Your task to perform on an android device: read, delete, or share a saved page in the chrome app Image 0: 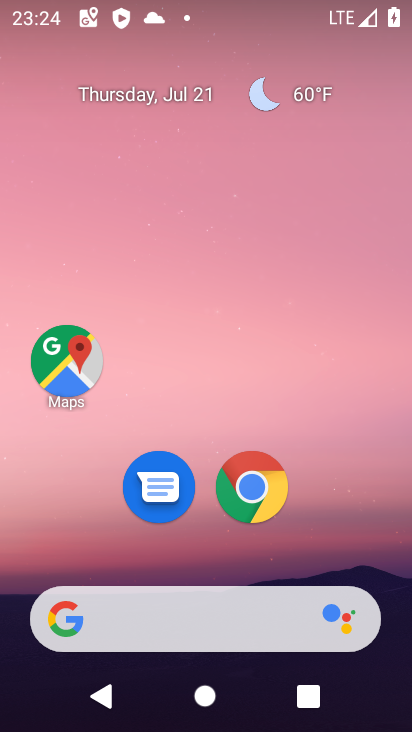
Step 0: click (236, 476)
Your task to perform on an android device: read, delete, or share a saved page in the chrome app Image 1: 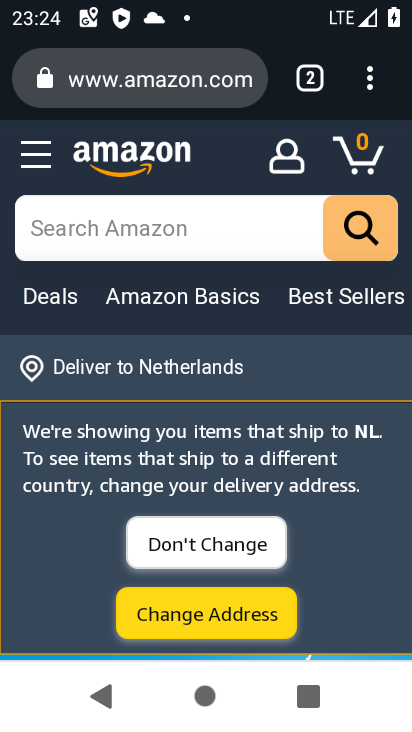
Step 1: drag from (371, 76) to (113, 500)
Your task to perform on an android device: read, delete, or share a saved page in the chrome app Image 2: 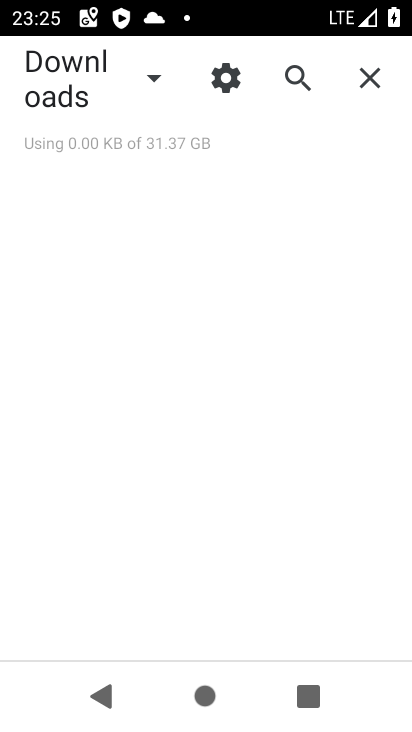
Step 2: click (142, 80)
Your task to perform on an android device: read, delete, or share a saved page in the chrome app Image 3: 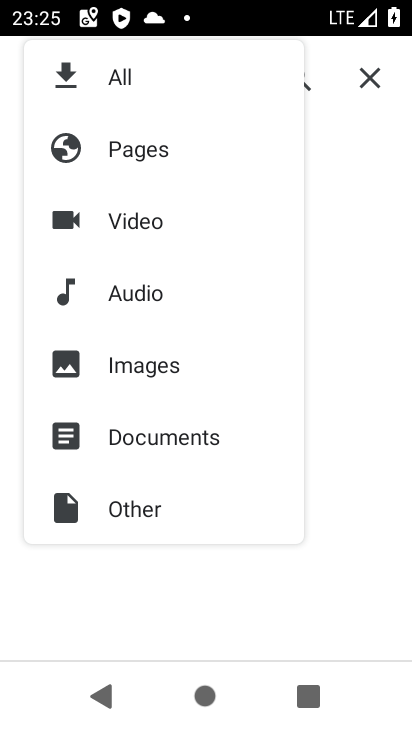
Step 3: click (147, 152)
Your task to perform on an android device: read, delete, or share a saved page in the chrome app Image 4: 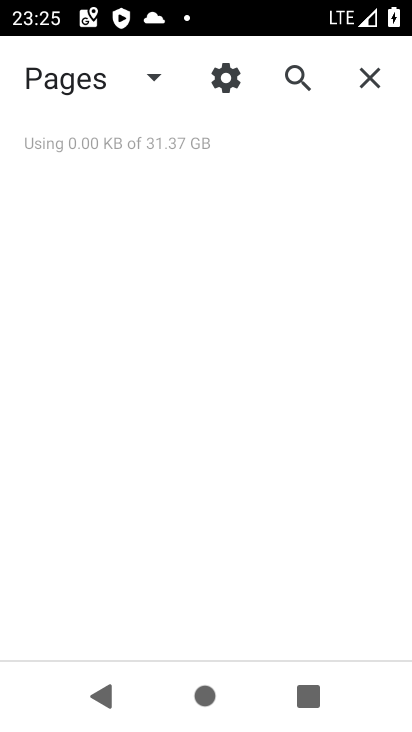
Step 4: task complete